Your task to perform on an android device: toggle show notifications on the lock screen Image 0: 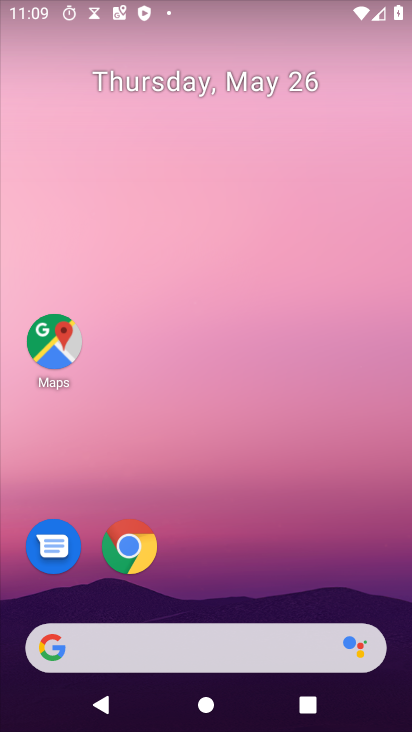
Step 0: click (316, 140)
Your task to perform on an android device: toggle show notifications on the lock screen Image 1: 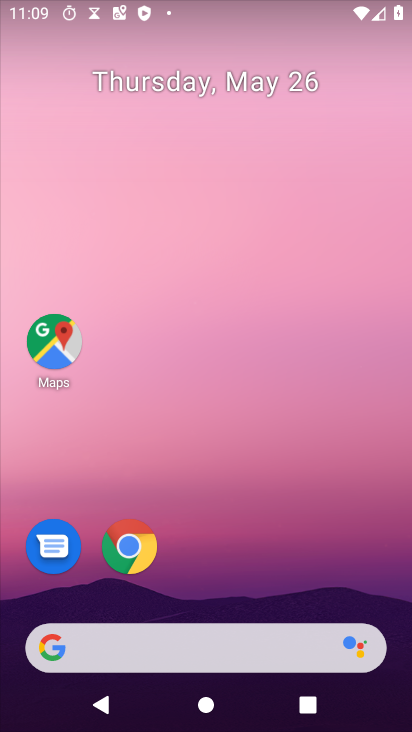
Step 1: drag from (355, 532) to (301, 105)
Your task to perform on an android device: toggle show notifications on the lock screen Image 2: 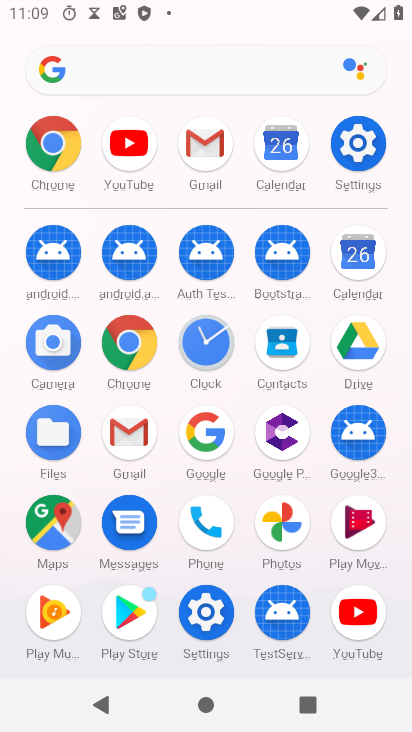
Step 2: click (192, 618)
Your task to perform on an android device: toggle show notifications on the lock screen Image 3: 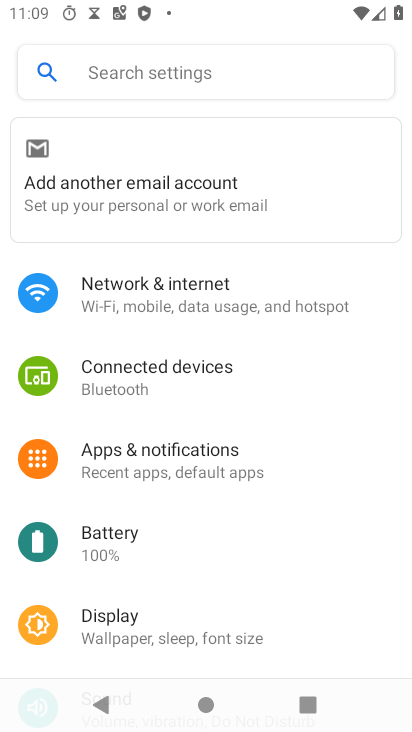
Step 3: click (237, 464)
Your task to perform on an android device: toggle show notifications on the lock screen Image 4: 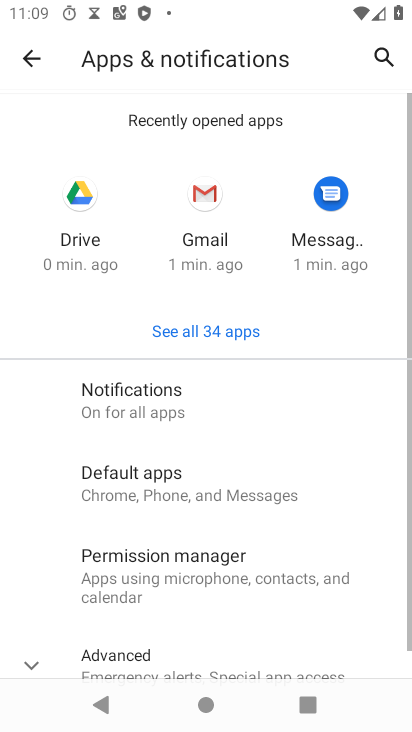
Step 4: click (246, 402)
Your task to perform on an android device: toggle show notifications on the lock screen Image 5: 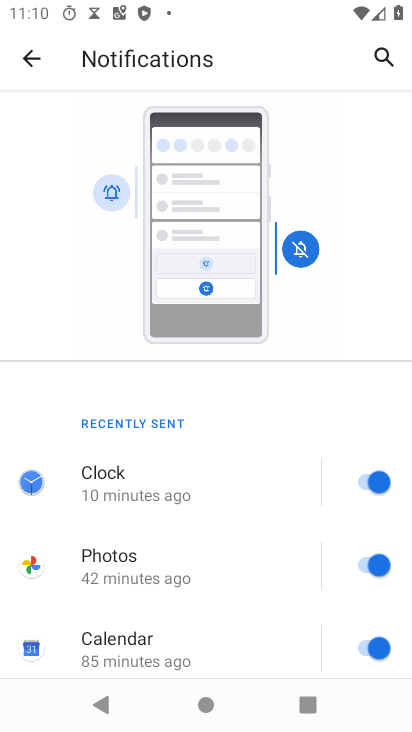
Step 5: drag from (253, 617) to (253, 337)
Your task to perform on an android device: toggle show notifications on the lock screen Image 6: 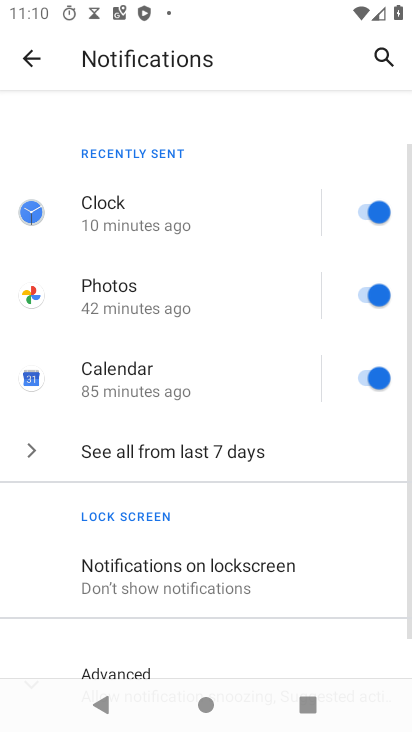
Step 6: drag from (220, 632) to (248, 284)
Your task to perform on an android device: toggle show notifications on the lock screen Image 7: 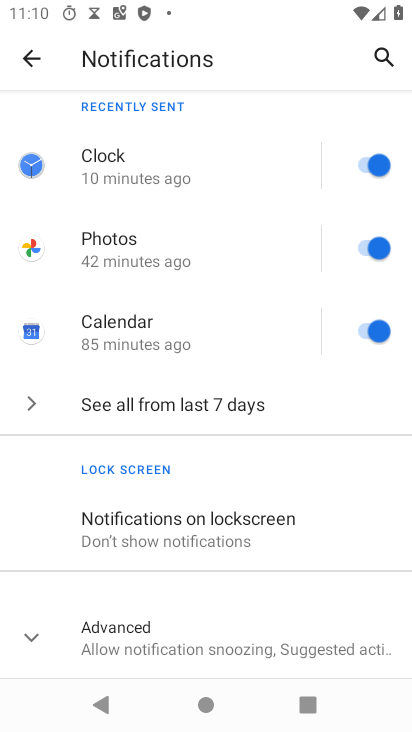
Step 7: click (197, 532)
Your task to perform on an android device: toggle show notifications on the lock screen Image 8: 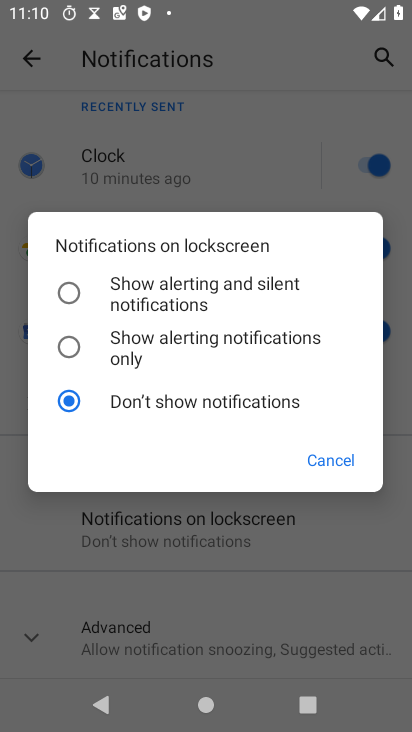
Step 8: click (65, 287)
Your task to perform on an android device: toggle show notifications on the lock screen Image 9: 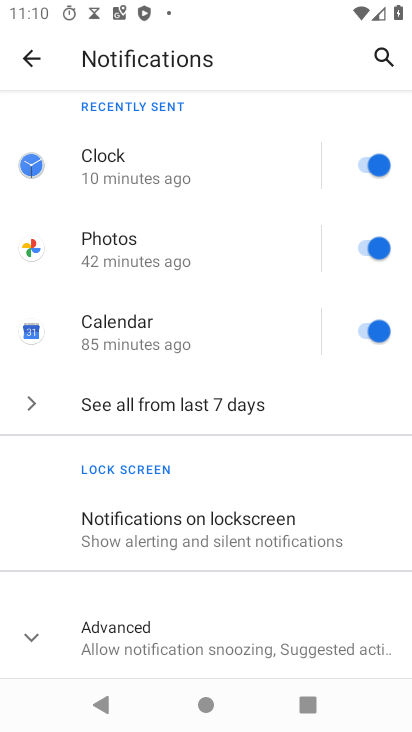
Step 9: task complete